Your task to perform on an android device: Search for vegetarian restaurants on Maps Image 0: 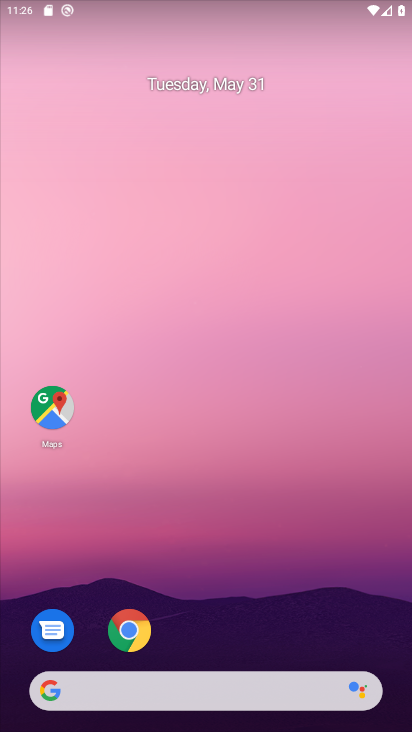
Step 0: click (45, 405)
Your task to perform on an android device: Search for vegetarian restaurants on Maps Image 1: 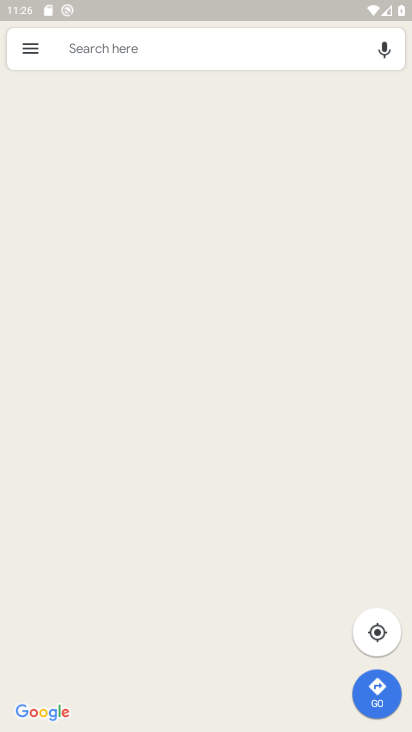
Step 1: click (199, 47)
Your task to perform on an android device: Search for vegetarian restaurants on Maps Image 2: 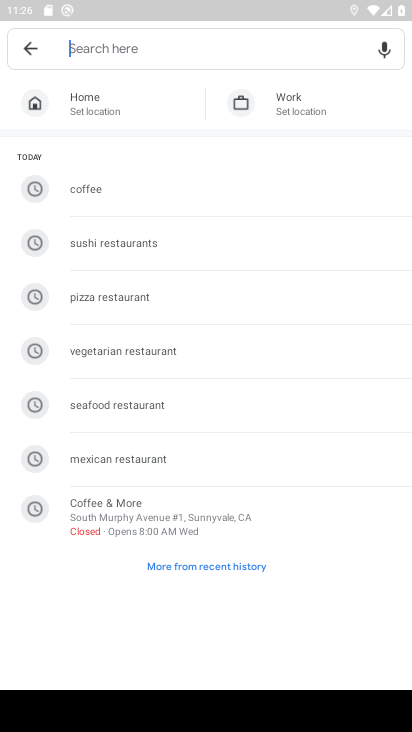
Step 2: click (154, 42)
Your task to perform on an android device: Search for vegetarian restaurants on Maps Image 3: 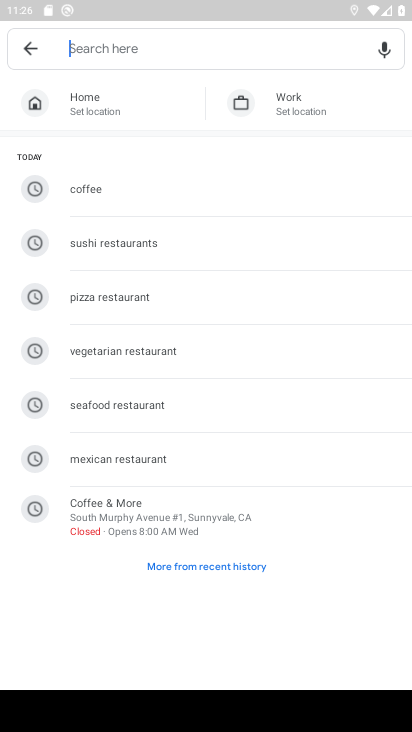
Step 3: click (209, 351)
Your task to perform on an android device: Search for vegetarian restaurants on Maps Image 4: 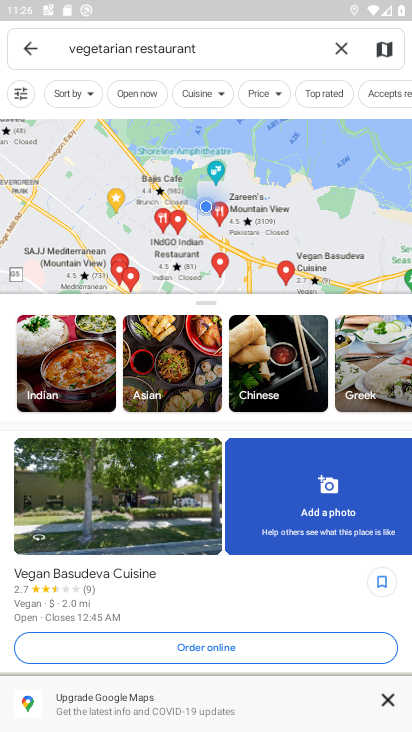
Step 4: task complete